Your task to perform on an android device: Go to CNN.com Image 0: 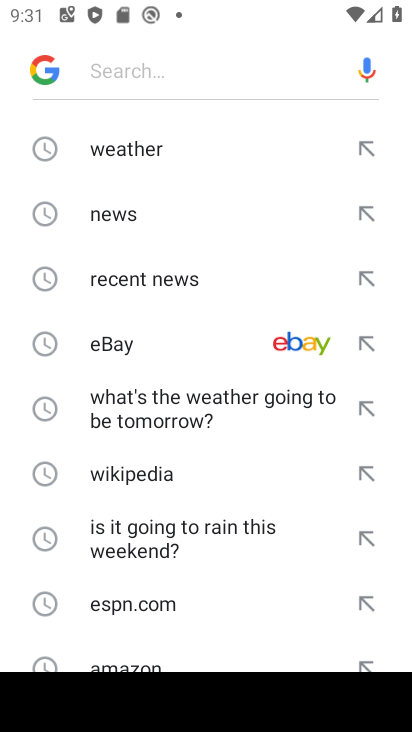
Step 0: press home button
Your task to perform on an android device: Go to CNN.com Image 1: 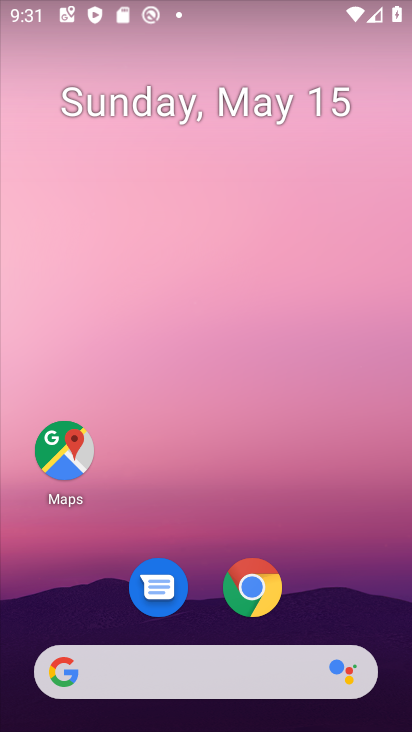
Step 1: drag from (380, 641) to (303, 61)
Your task to perform on an android device: Go to CNN.com Image 2: 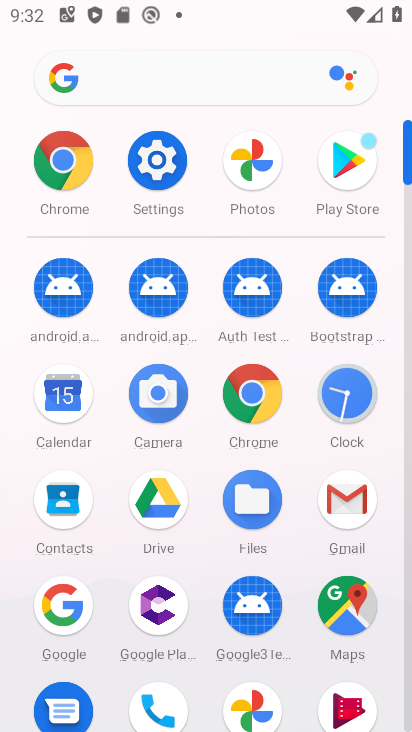
Step 2: click (261, 381)
Your task to perform on an android device: Go to CNN.com Image 3: 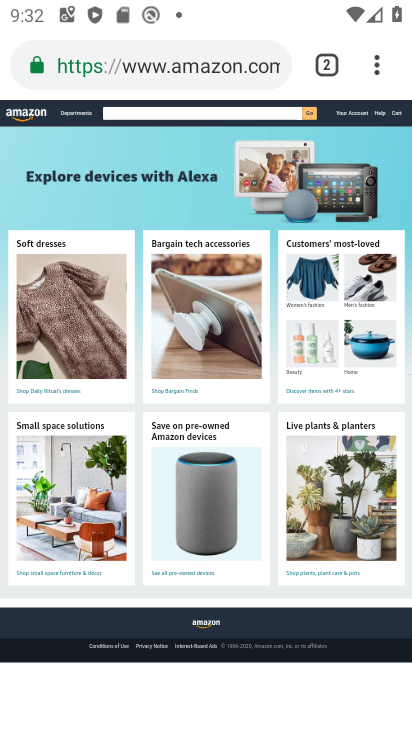
Step 3: press back button
Your task to perform on an android device: Go to CNN.com Image 4: 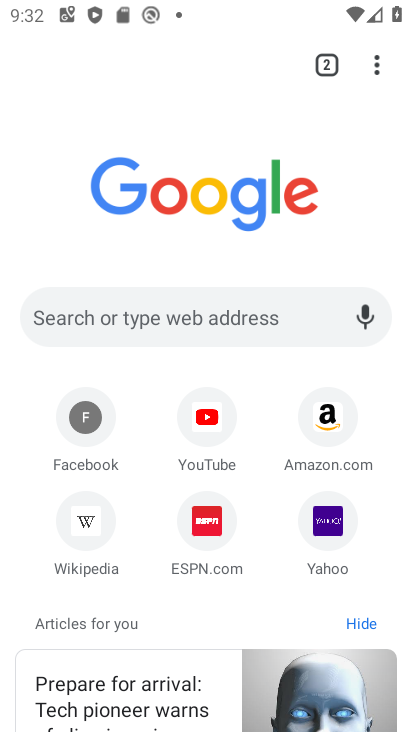
Step 4: click (132, 327)
Your task to perform on an android device: Go to CNN.com Image 5: 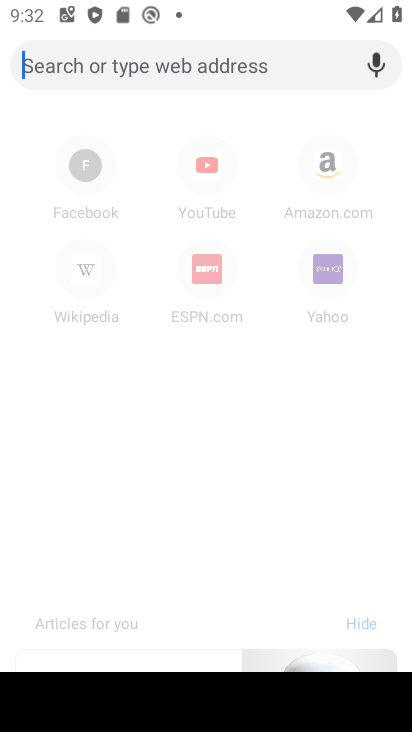
Step 5: type "cnn.com"
Your task to perform on an android device: Go to CNN.com Image 6: 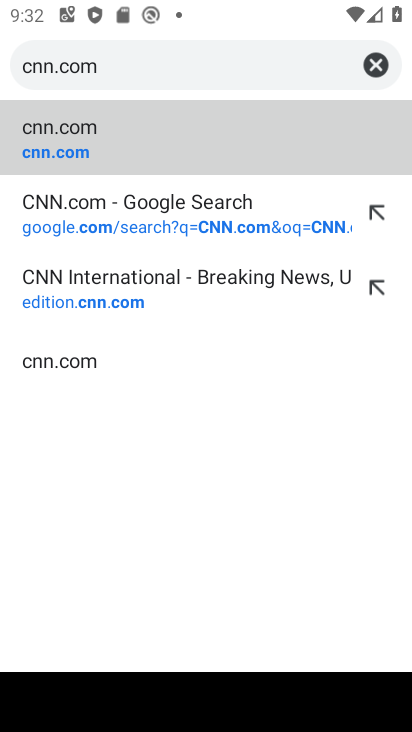
Step 6: click (303, 128)
Your task to perform on an android device: Go to CNN.com Image 7: 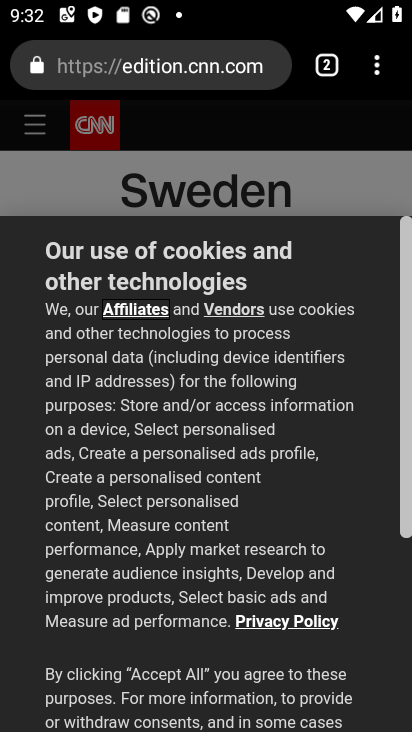
Step 7: task complete